Your task to perform on an android device: toggle translation in the chrome app Image 0: 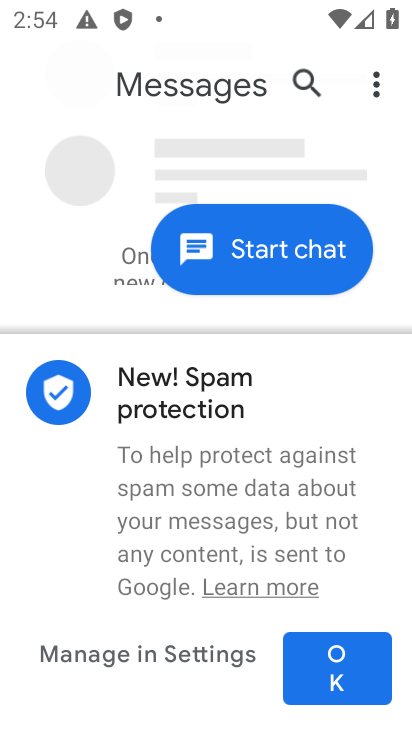
Step 0: press back button
Your task to perform on an android device: toggle translation in the chrome app Image 1: 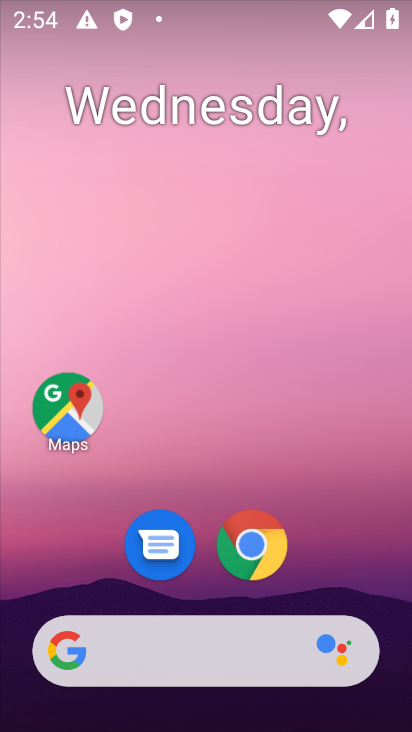
Step 1: click (252, 536)
Your task to perform on an android device: toggle translation in the chrome app Image 2: 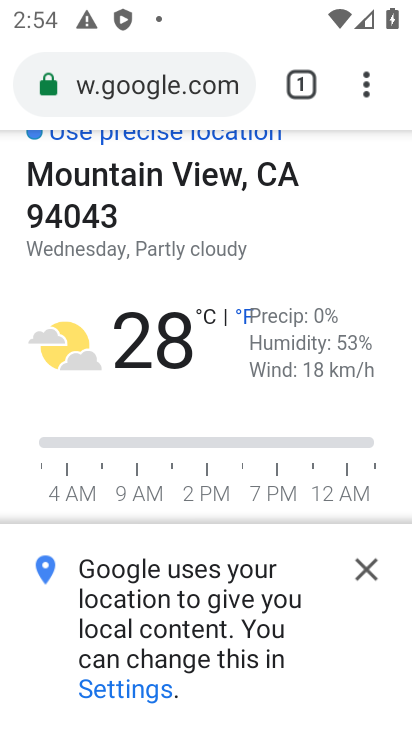
Step 2: drag from (378, 89) to (124, 601)
Your task to perform on an android device: toggle translation in the chrome app Image 3: 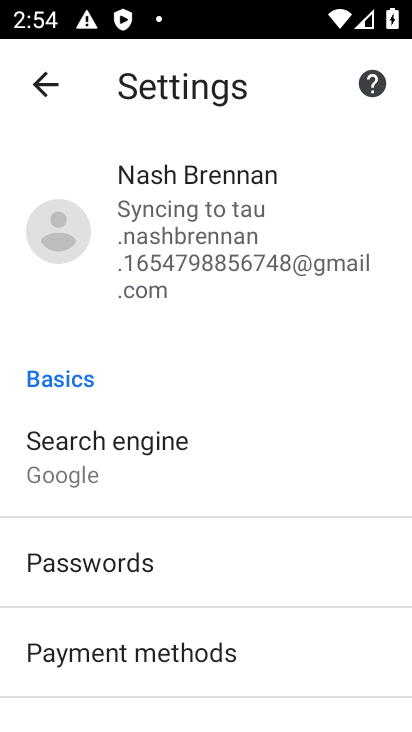
Step 3: drag from (198, 600) to (170, 238)
Your task to perform on an android device: toggle translation in the chrome app Image 4: 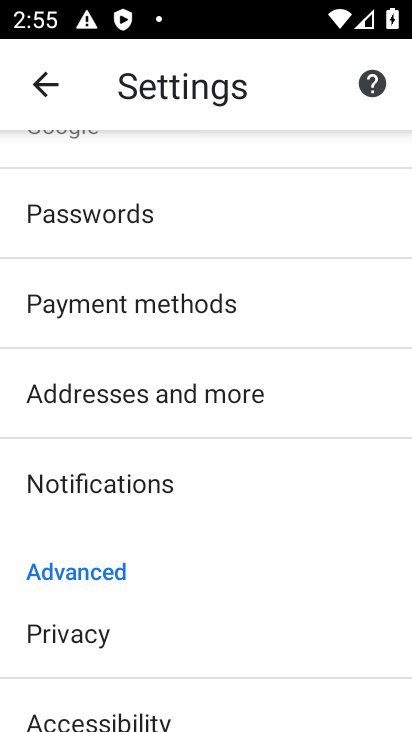
Step 4: drag from (166, 667) to (140, 296)
Your task to perform on an android device: toggle translation in the chrome app Image 5: 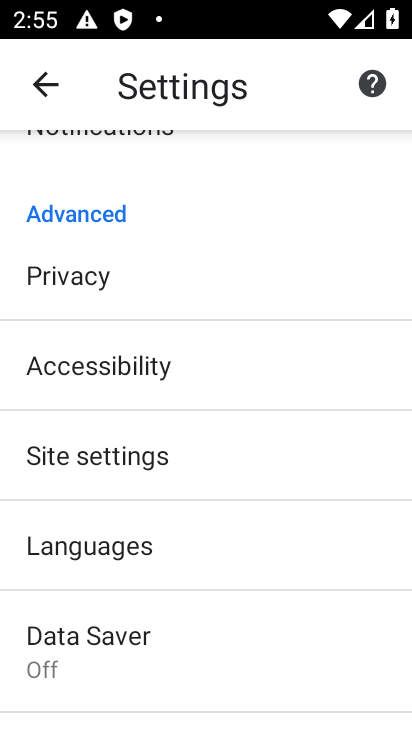
Step 5: click (84, 551)
Your task to perform on an android device: toggle translation in the chrome app Image 6: 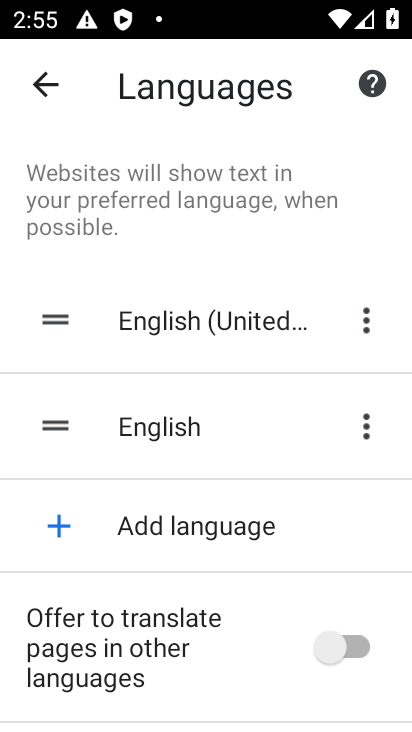
Step 6: click (336, 644)
Your task to perform on an android device: toggle translation in the chrome app Image 7: 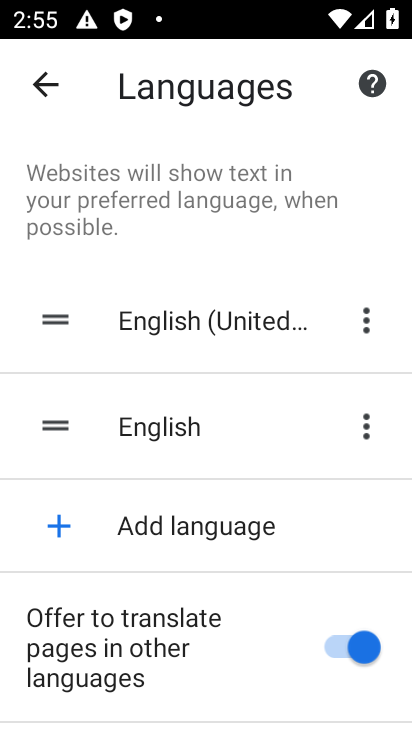
Step 7: task complete